Your task to perform on an android device: Search for logitech g933 on target.com, select the first entry, and add it to the cart. Image 0: 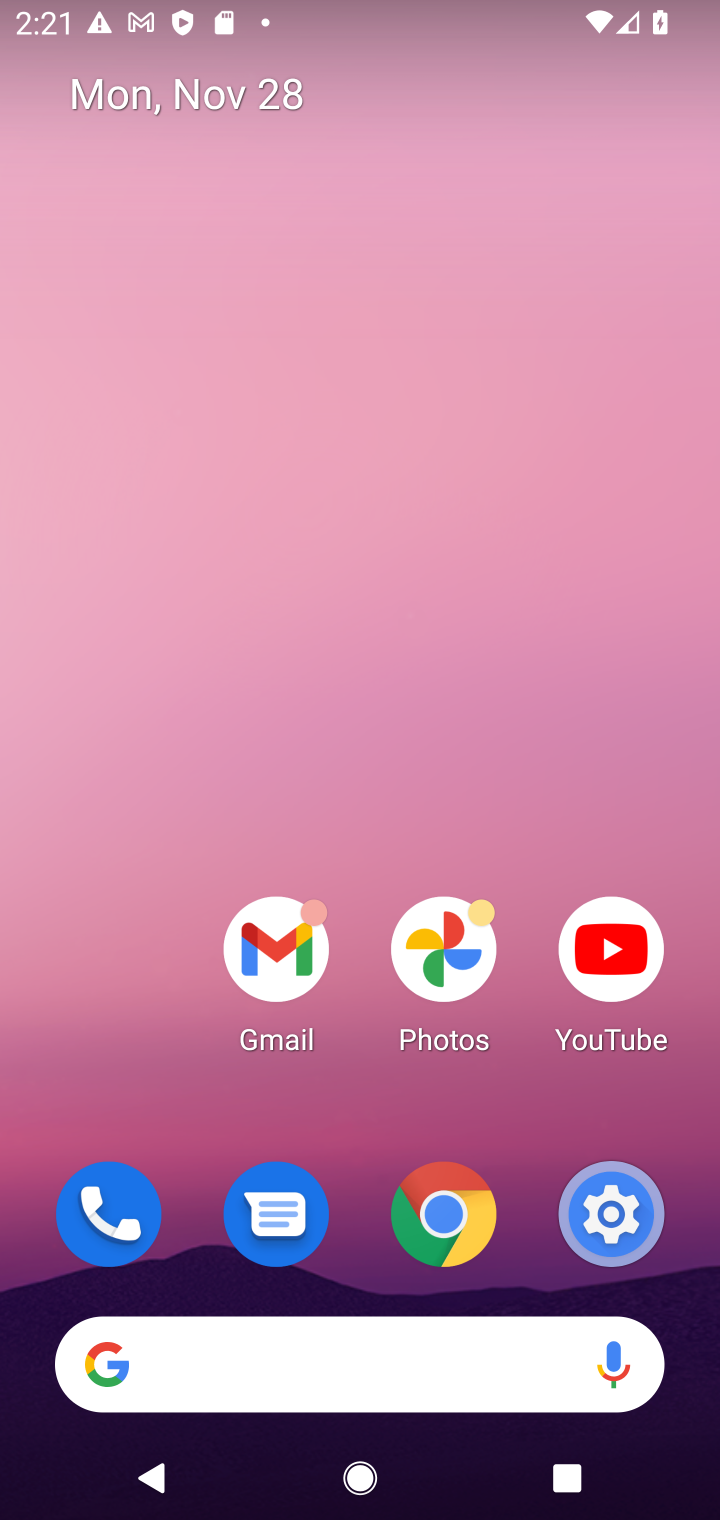
Step 0: click (355, 1354)
Your task to perform on an android device: Search for logitech g933 on target.com, select the first entry, and add it to the cart. Image 1: 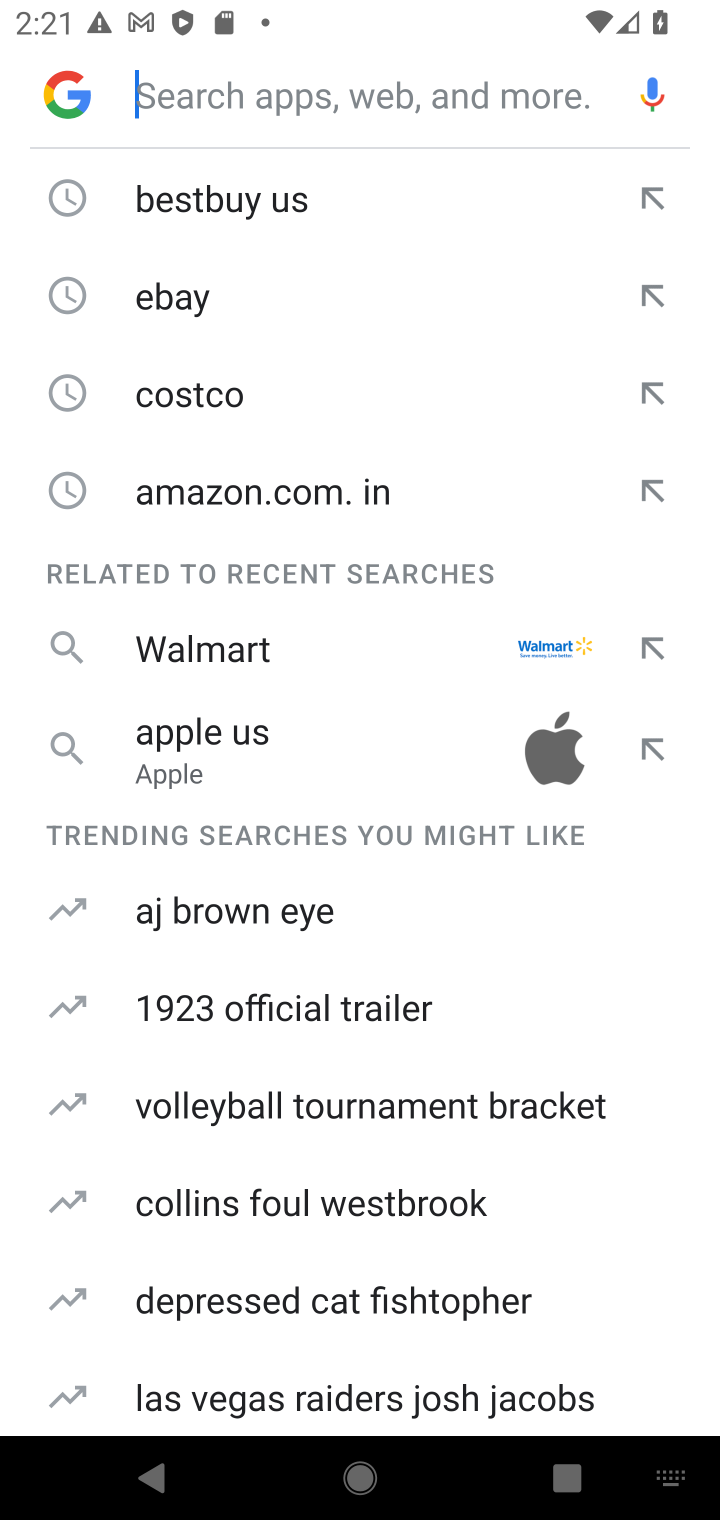
Step 1: type "target"
Your task to perform on an android device: Search for logitech g933 on target.com, select the first entry, and add it to the cart. Image 2: 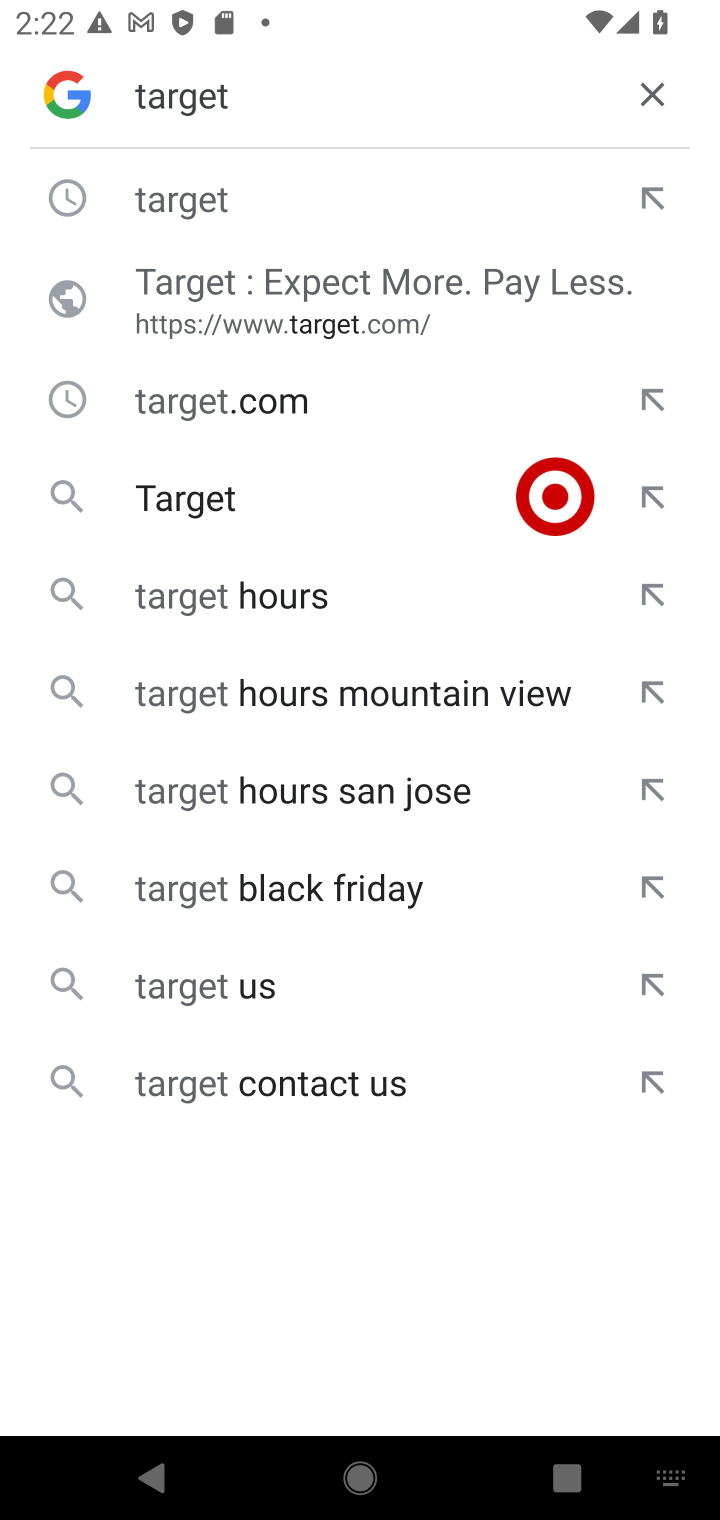
Step 2: click (255, 520)
Your task to perform on an android device: Search for logitech g933 on target.com, select the first entry, and add it to the cart. Image 3: 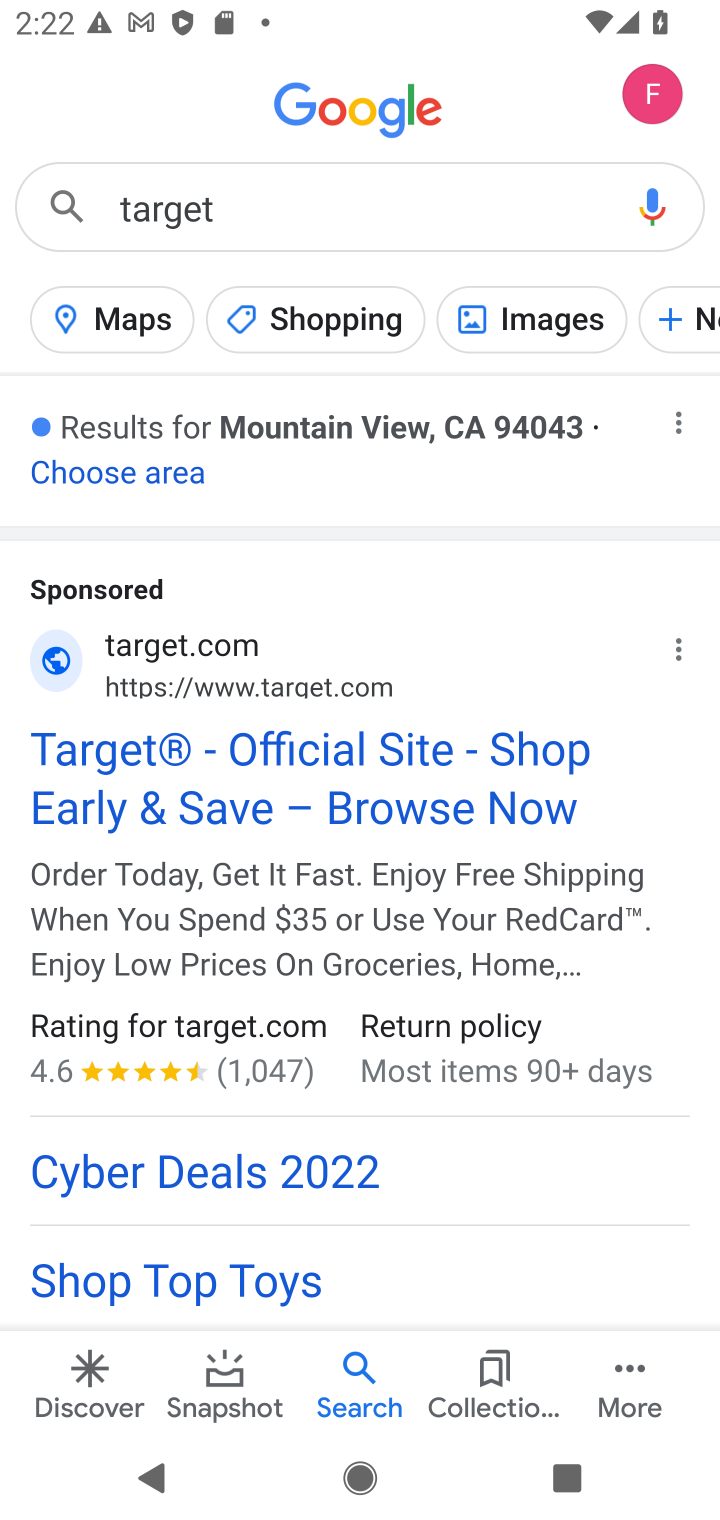
Step 3: click (148, 771)
Your task to perform on an android device: Search for logitech g933 on target.com, select the first entry, and add it to the cart. Image 4: 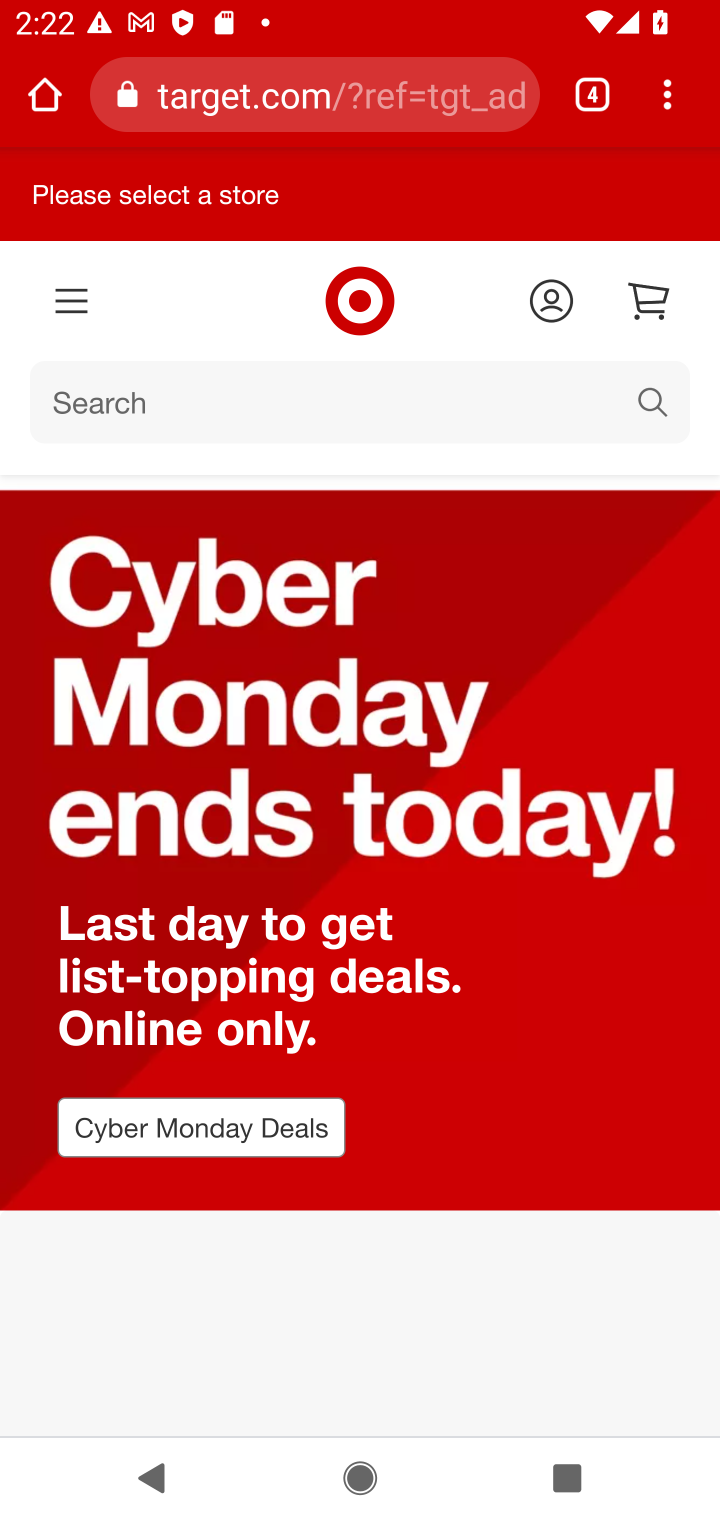
Step 4: task complete